Your task to perform on an android device: turn off location history Image 0: 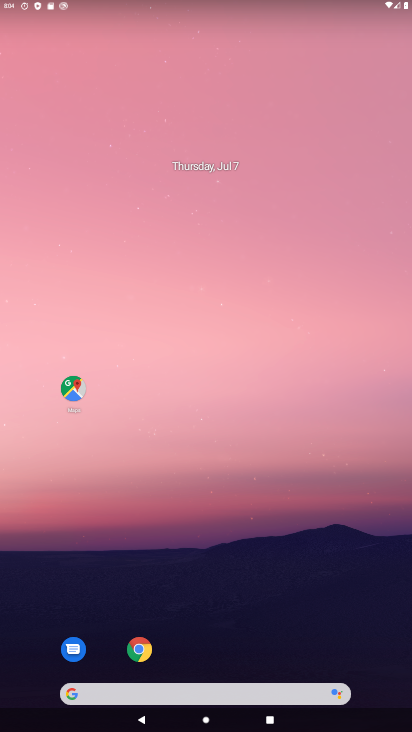
Step 0: press home button
Your task to perform on an android device: turn off location history Image 1: 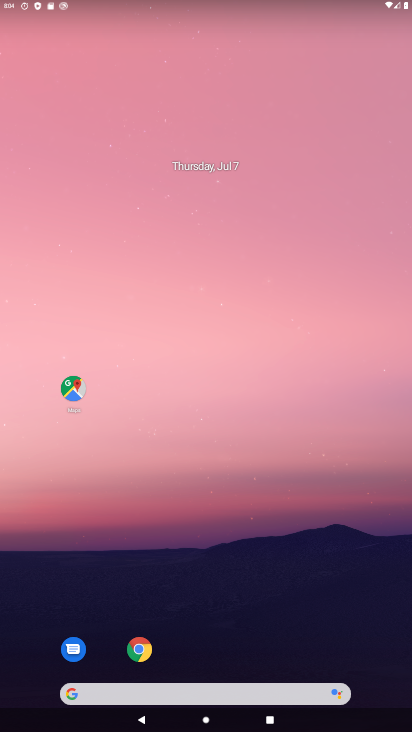
Step 1: drag from (220, 649) to (255, 27)
Your task to perform on an android device: turn off location history Image 2: 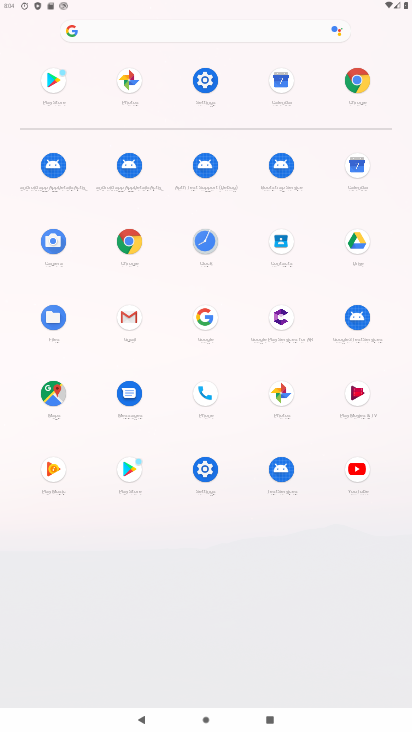
Step 2: click (204, 71)
Your task to perform on an android device: turn off location history Image 3: 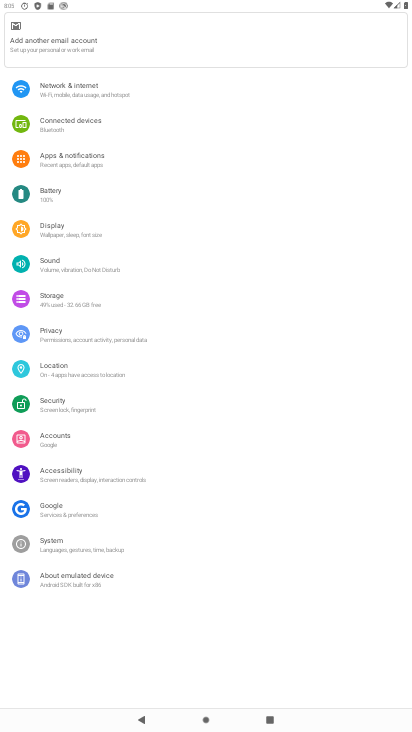
Step 3: click (86, 368)
Your task to perform on an android device: turn off location history Image 4: 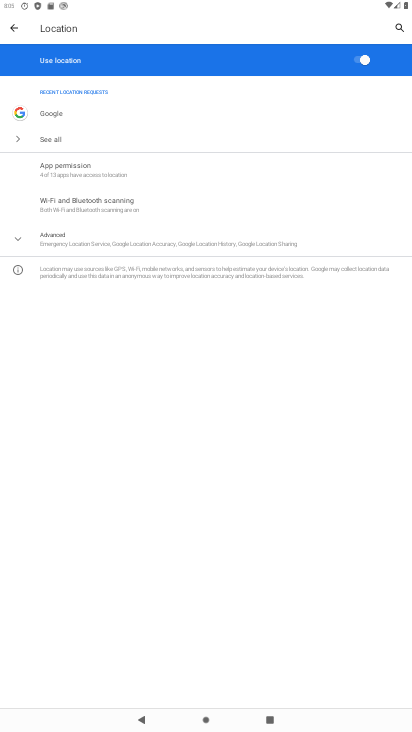
Step 4: click (71, 238)
Your task to perform on an android device: turn off location history Image 5: 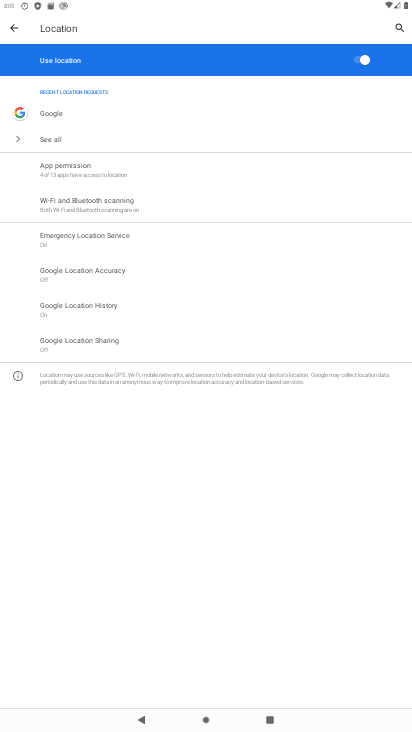
Step 5: click (104, 303)
Your task to perform on an android device: turn off location history Image 6: 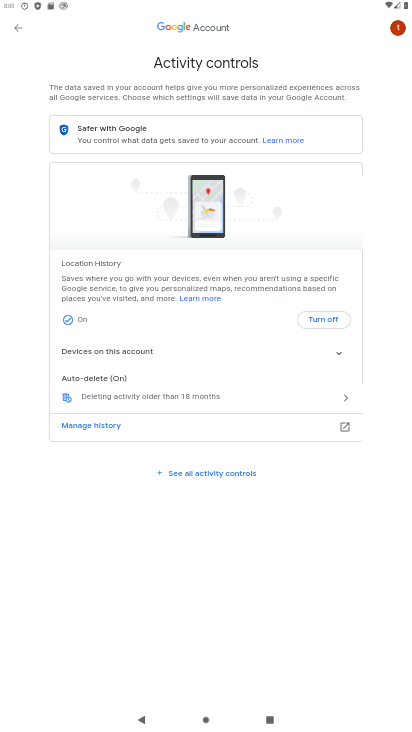
Step 6: click (326, 321)
Your task to perform on an android device: turn off location history Image 7: 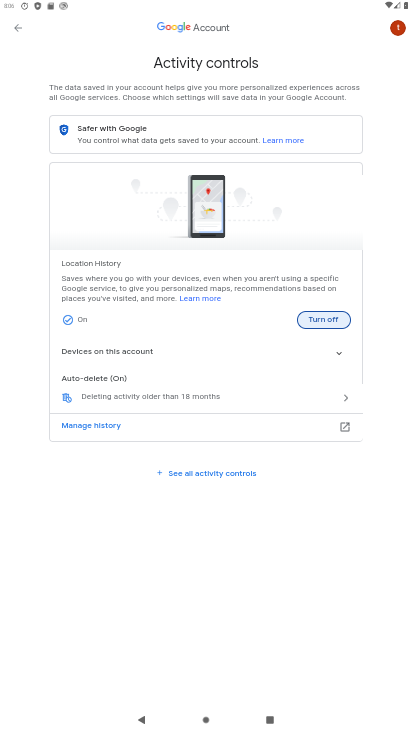
Step 7: click (323, 316)
Your task to perform on an android device: turn off location history Image 8: 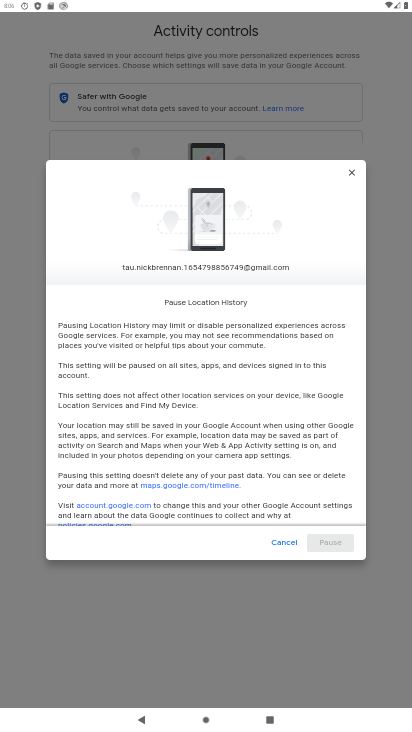
Step 8: drag from (227, 476) to (252, 147)
Your task to perform on an android device: turn off location history Image 9: 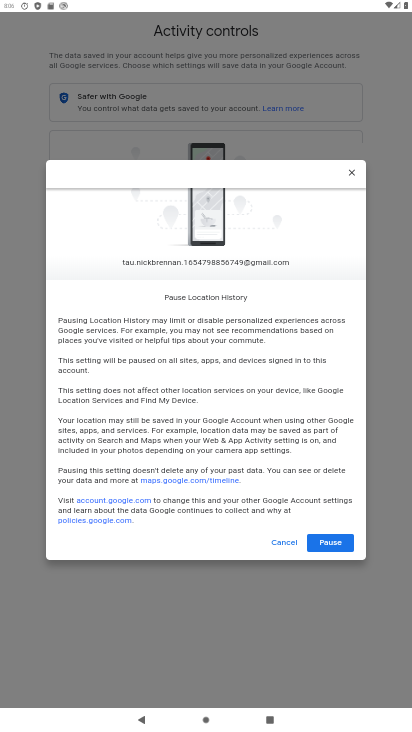
Step 9: click (346, 539)
Your task to perform on an android device: turn off location history Image 10: 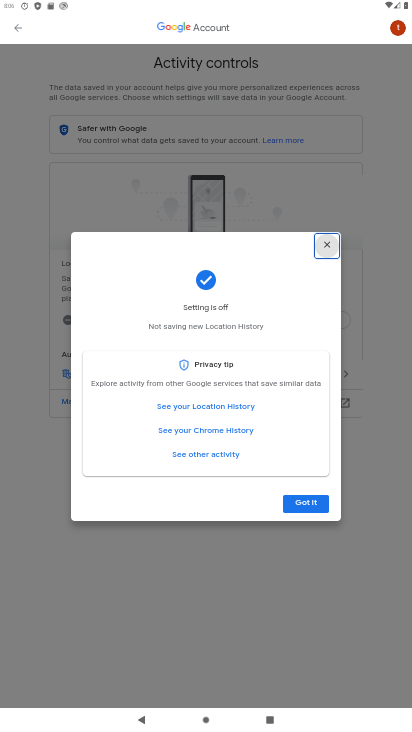
Step 10: click (304, 500)
Your task to perform on an android device: turn off location history Image 11: 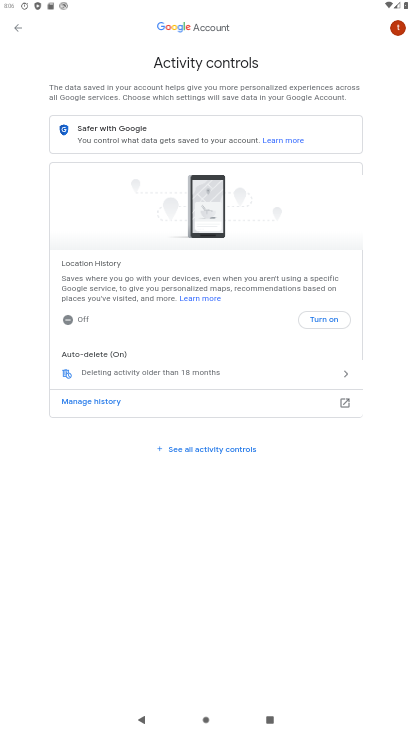
Step 11: task complete